Your task to perform on an android device: Is it going to rain today? Image 0: 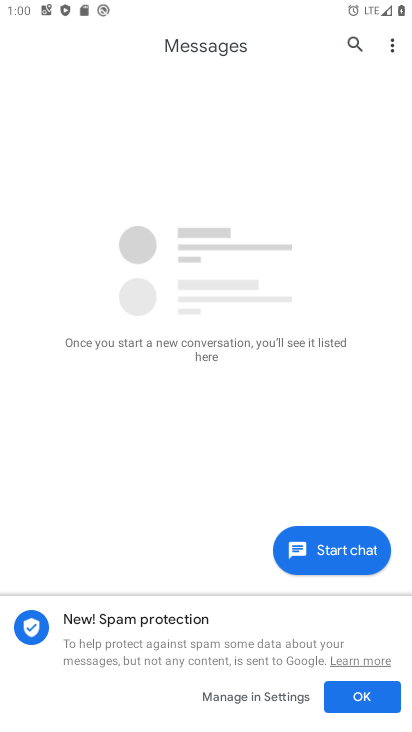
Step 0: press home button
Your task to perform on an android device: Is it going to rain today? Image 1: 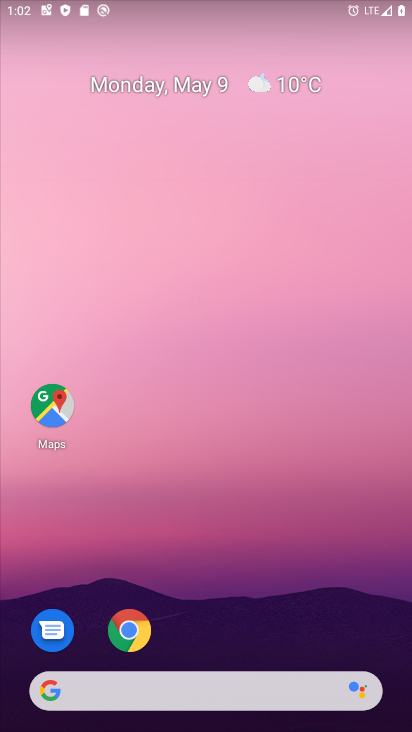
Step 1: click (74, 698)
Your task to perform on an android device: Is it going to rain today? Image 2: 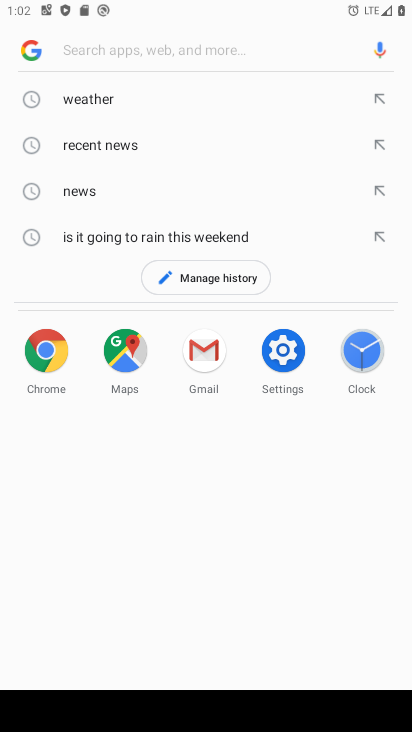
Step 2: click (154, 103)
Your task to perform on an android device: Is it going to rain today? Image 3: 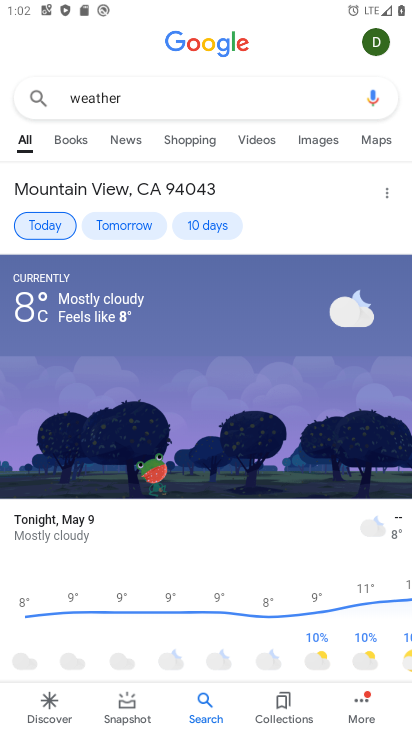
Step 3: task complete